Your task to perform on an android device: turn on data saver in the chrome app Image 0: 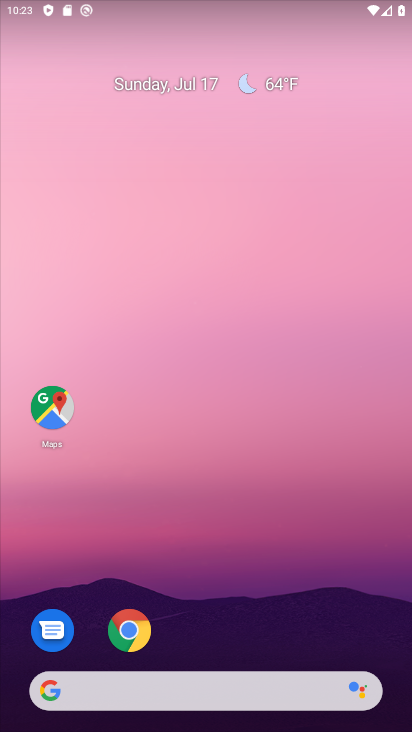
Step 0: click (125, 630)
Your task to perform on an android device: turn on data saver in the chrome app Image 1: 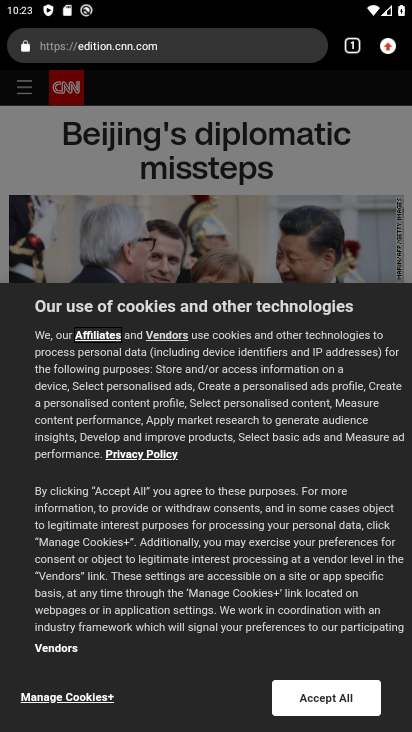
Step 1: click (388, 45)
Your task to perform on an android device: turn on data saver in the chrome app Image 2: 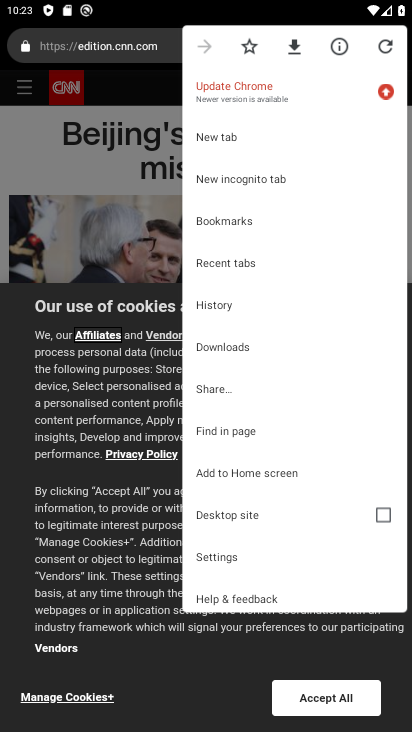
Step 2: click (225, 552)
Your task to perform on an android device: turn on data saver in the chrome app Image 3: 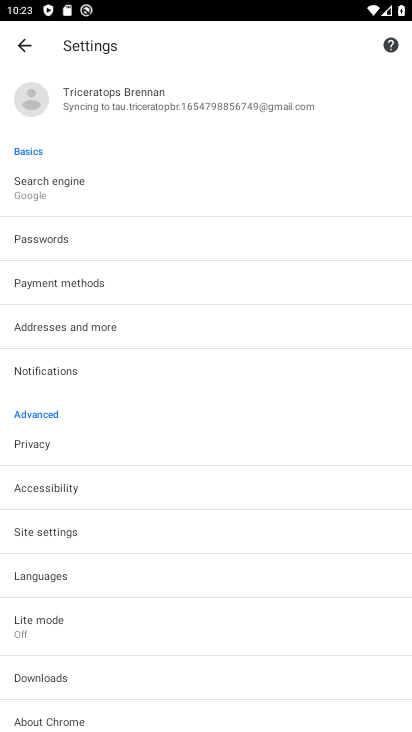
Step 3: drag from (198, 695) to (183, 448)
Your task to perform on an android device: turn on data saver in the chrome app Image 4: 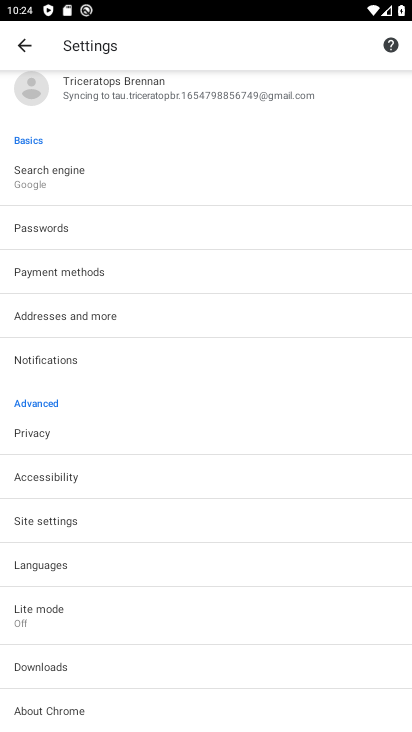
Step 4: click (42, 611)
Your task to perform on an android device: turn on data saver in the chrome app Image 5: 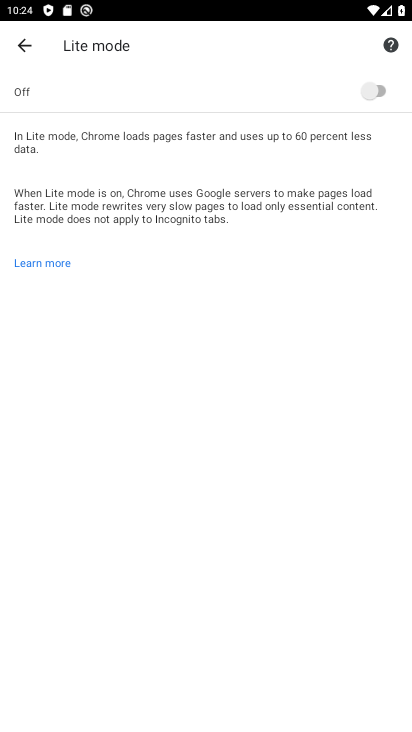
Step 5: click (383, 90)
Your task to perform on an android device: turn on data saver in the chrome app Image 6: 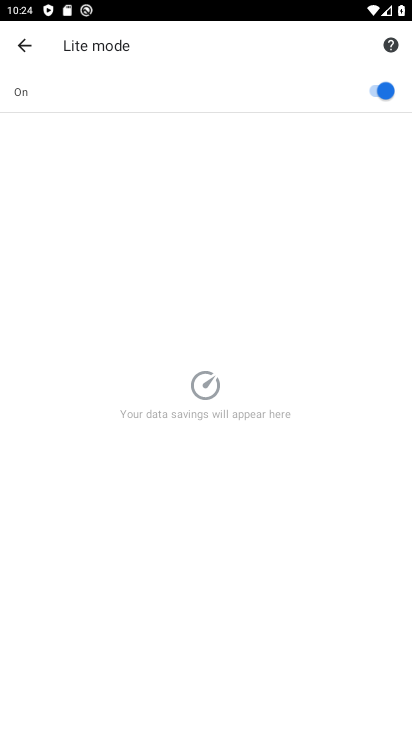
Step 6: task complete